Your task to perform on an android device: check google app version Image 0: 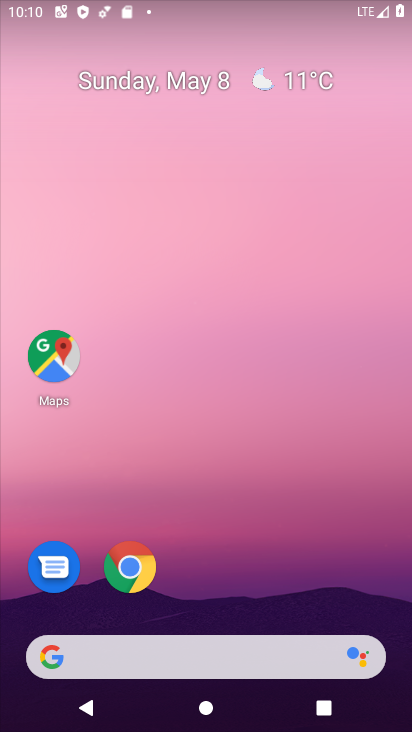
Step 0: drag from (209, 549) to (330, 84)
Your task to perform on an android device: check google app version Image 1: 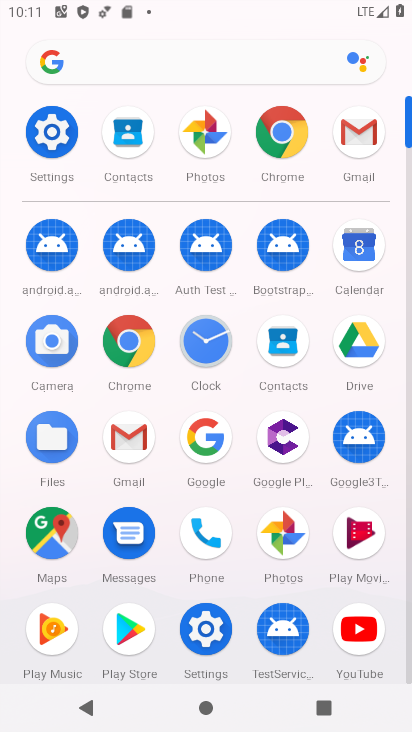
Step 1: click (207, 432)
Your task to perform on an android device: check google app version Image 2: 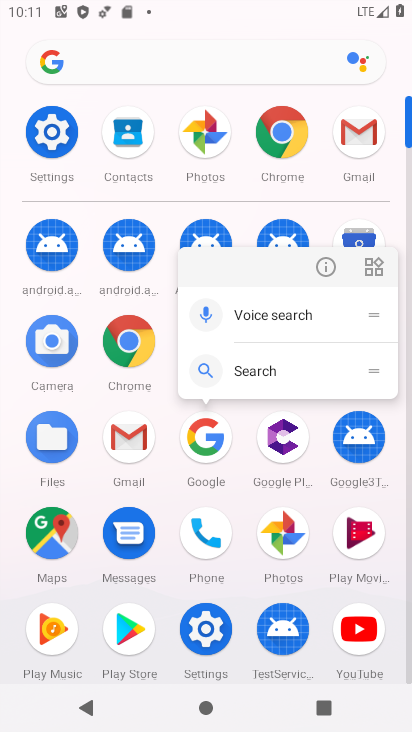
Step 2: click (324, 266)
Your task to perform on an android device: check google app version Image 3: 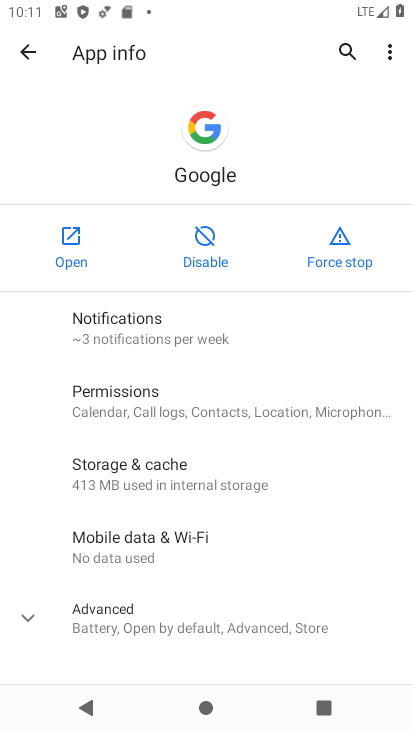
Step 3: drag from (140, 623) to (301, 10)
Your task to perform on an android device: check google app version Image 4: 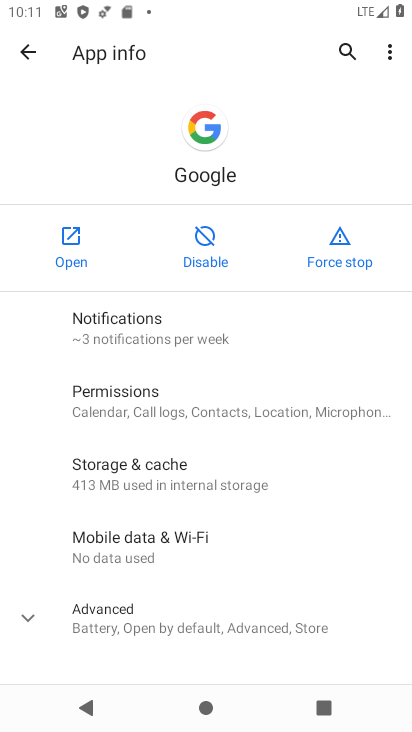
Step 4: click (118, 616)
Your task to perform on an android device: check google app version Image 5: 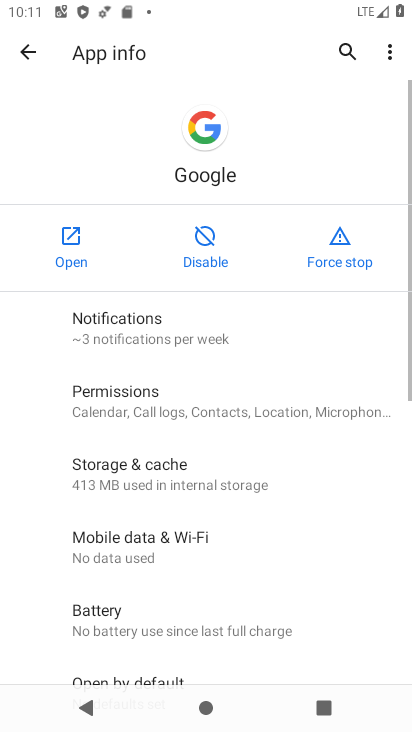
Step 5: drag from (115, 616) to (286, 0)
Your task to perform on an android device: check google app version Image 6: 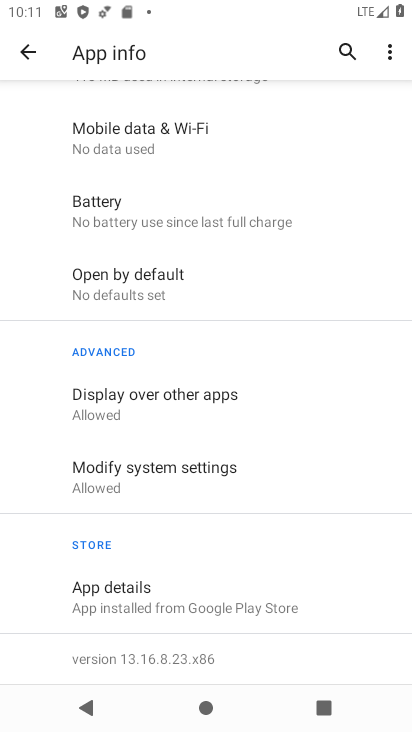
Step 6: click (109, 652)
Your task to perform on an android device: check google app version Image 7: 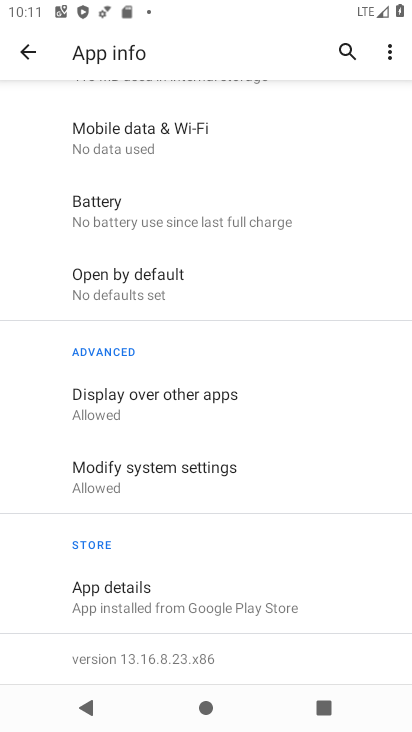
Step 7: task complete